Your task to perform on an android device: Open sound settings Image 0: 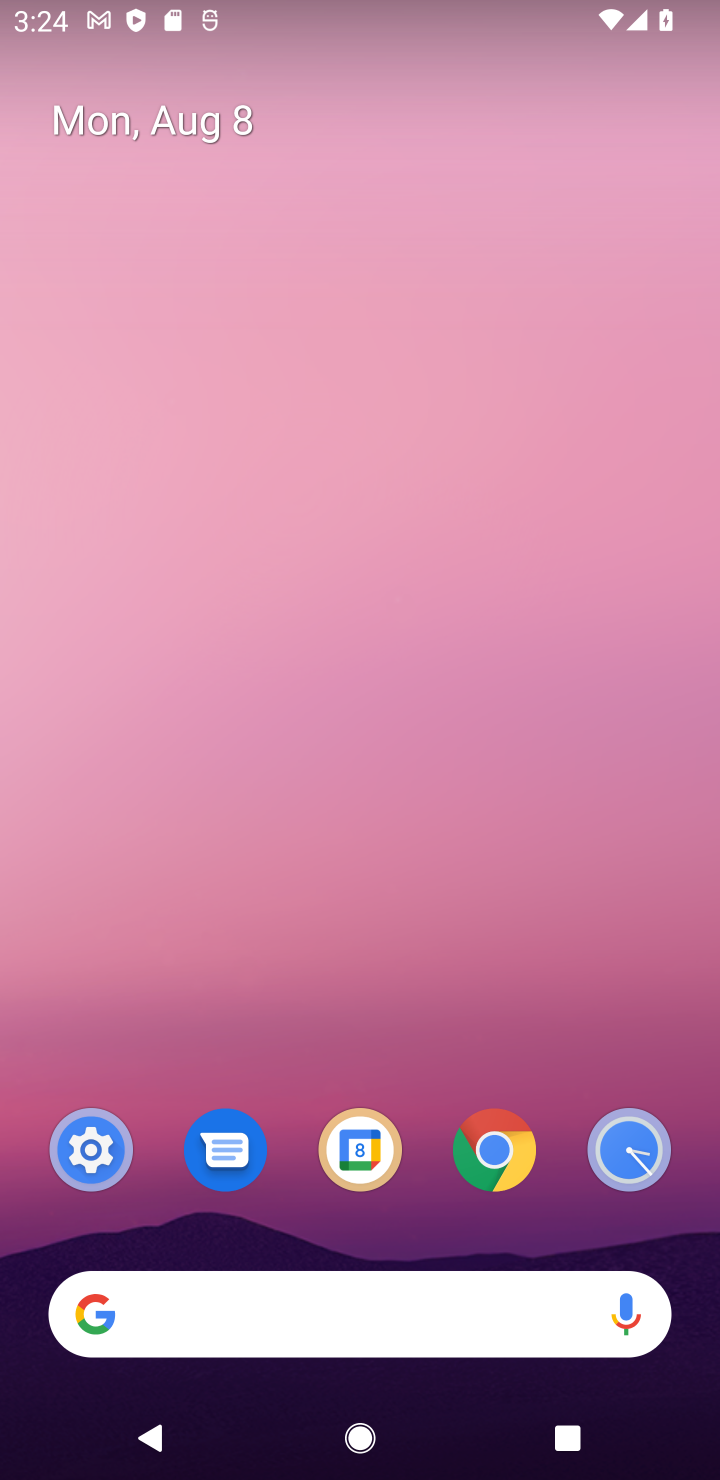
Step 0: click (90, 1123)
Your task to perform on an android device: Open sound settings Image 1: 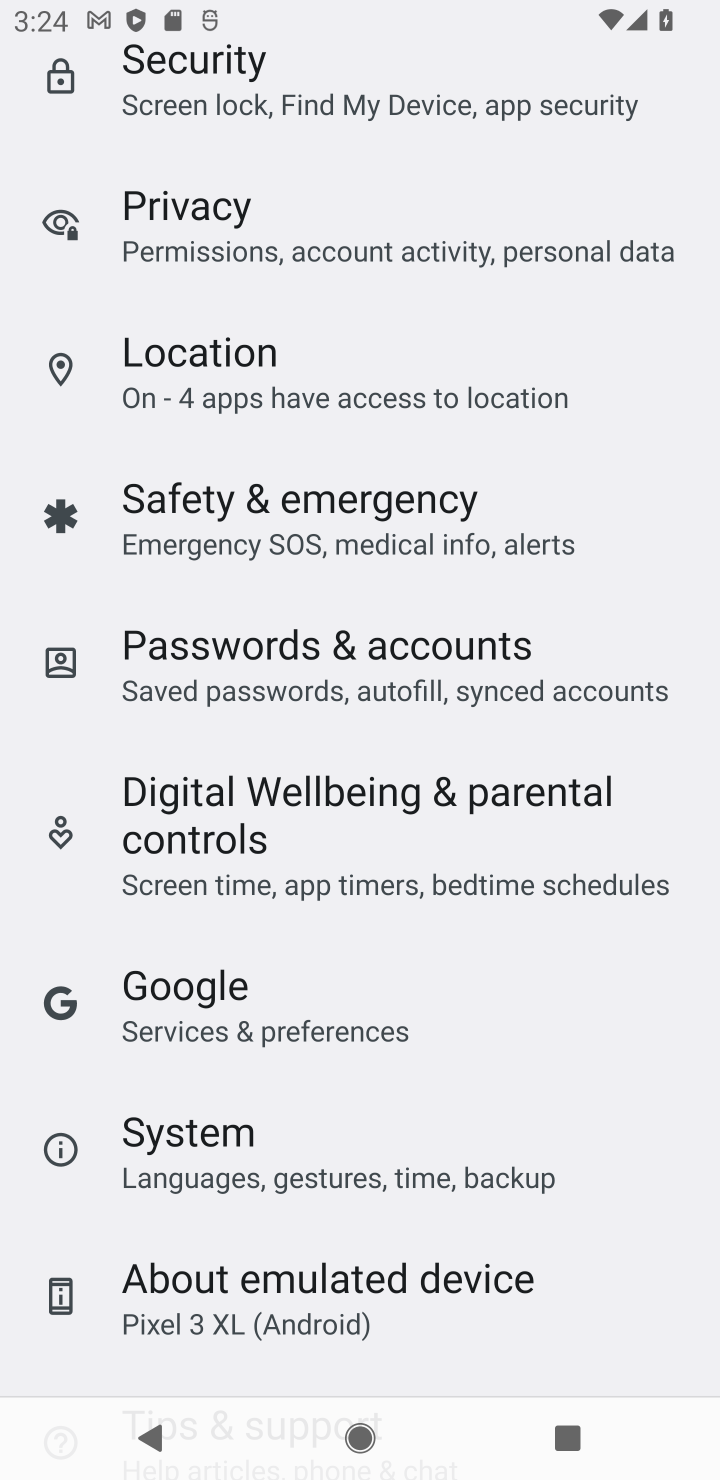
Step 1: task complete